Your task to perform on an android device: find snoozed emails in the gmail app Image 0: 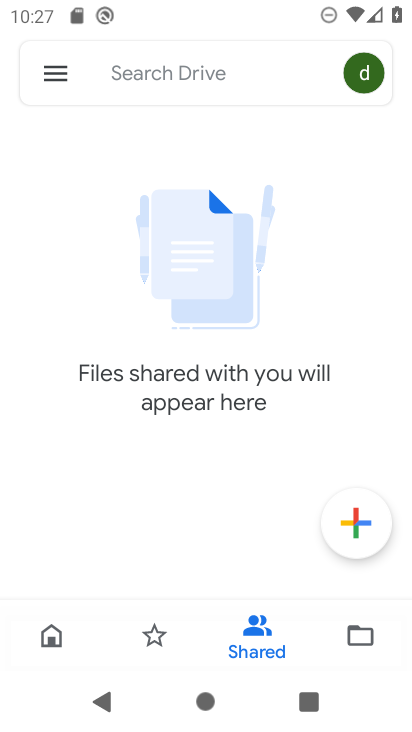
Step 0: press home button
Your task to perform on an android device: find snoozed emails in the gmail app Image 1: 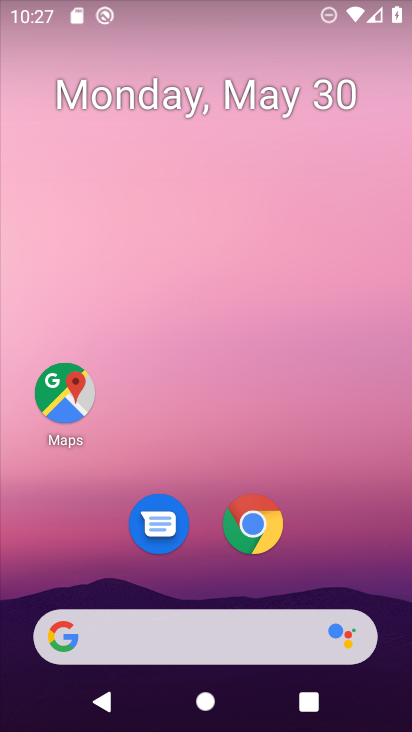
Step 1: drag from (317, 536) to (309, 50)
Your task to perform on an android device: find snoozed emails in the gmail app Image 2: 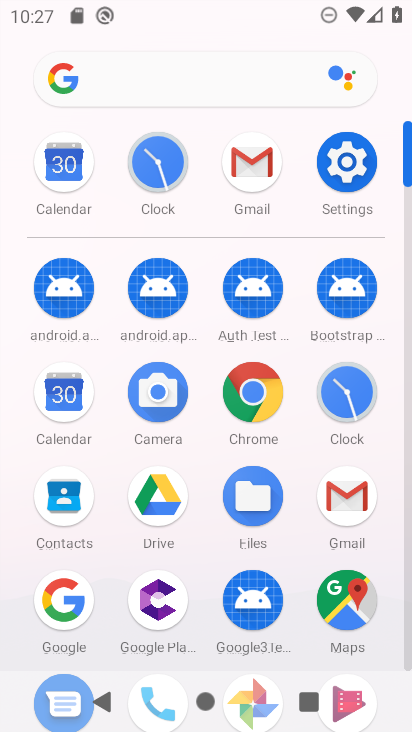
Step 2: click (252, 157)
Your task to perform on an android device: find snoozed emails in the gmail app Image 3: 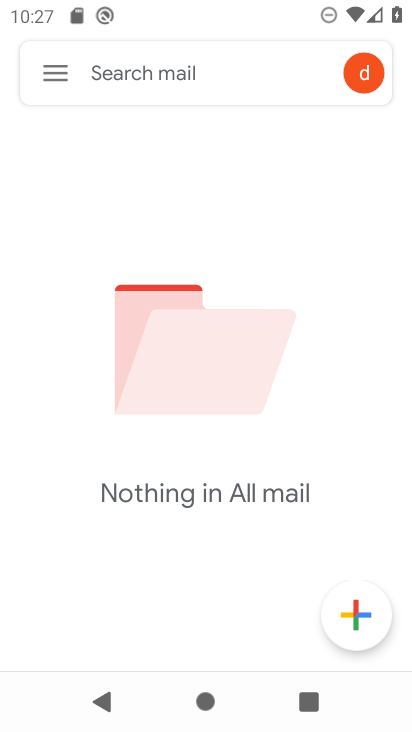
Step 3: click (56, 70)
Your task to perform on an android device: find snoozed emails in the gmail app Image 4: 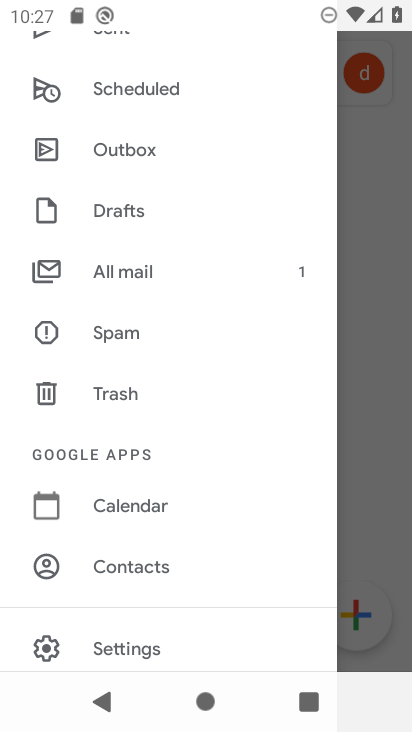
Step 4: drag from (190, 170) to (214, 448)
Your task to perform on an android device: find snoozed emails in the gmail app Image 5: 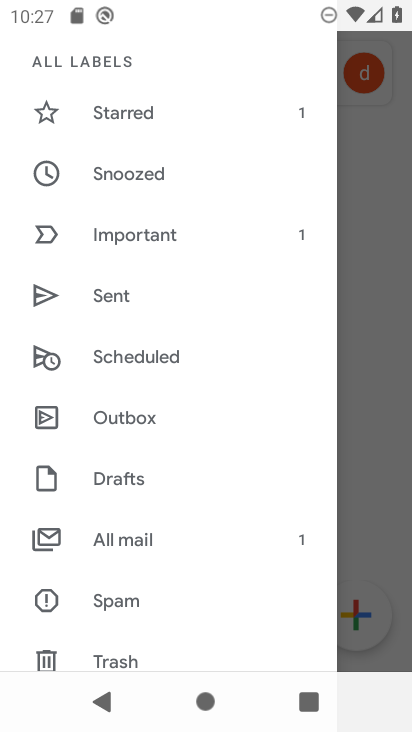
Step 5: click (175, 166)
Your task to perform on an android device: find snoozed emails in the gmail app Image 6: 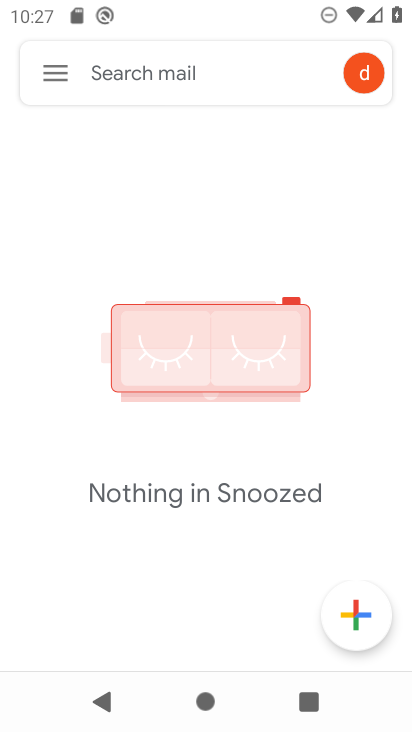
Step 6: task complete